Your task to perform on an android device: turn off wifi Image 0: 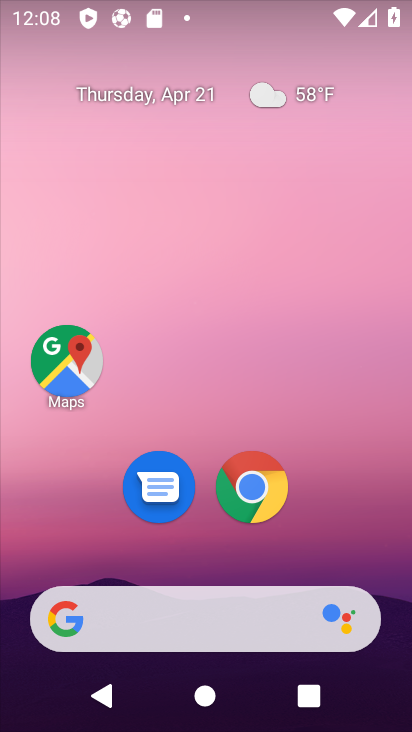
Step 0: drag from (365, 559) to (359, 3)
Your task to perform on an android device: turn off wifi Image 1: 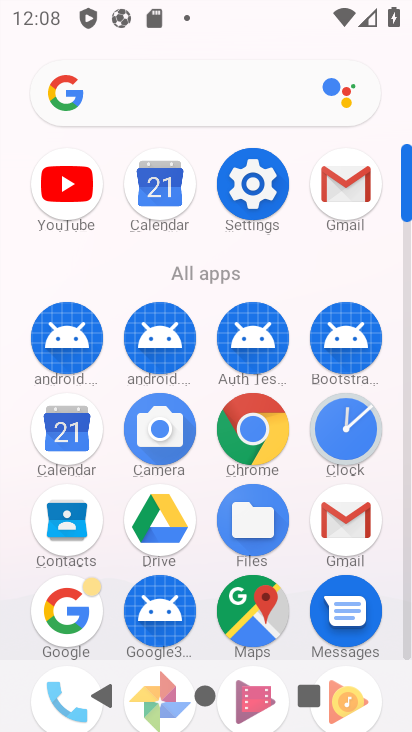
Step 1: click (249, 179)
Your task to perform on an android device: turn off wifi Image 2: 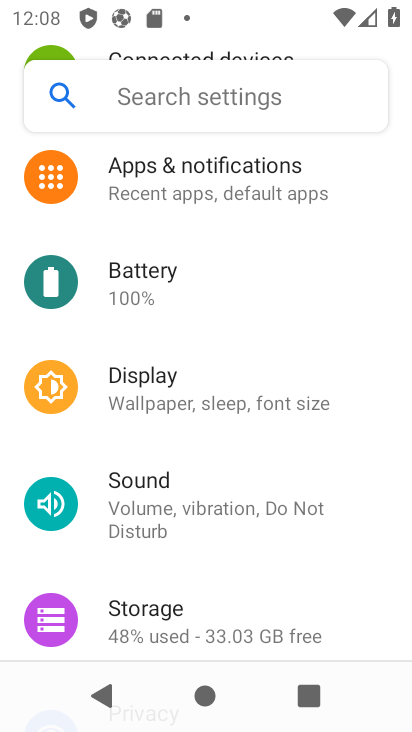
Step 2: drag from (393, 207) to (389, 604)
Your task to perform on an android device: turn off wifi Image 3: 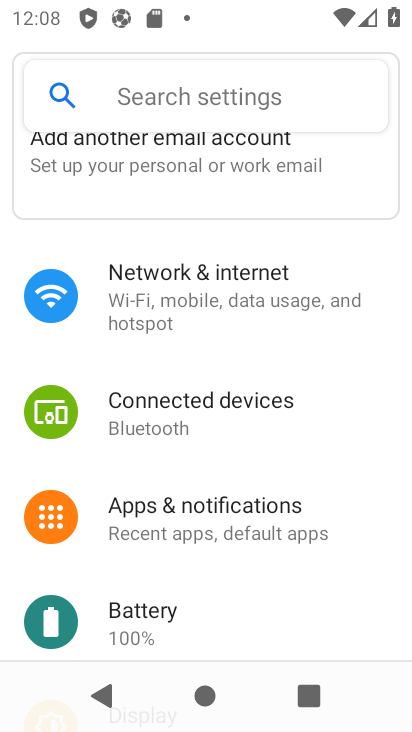
Step 3: click (163, 314)
Your task to perform on an android device: turn off wifi Image 4: 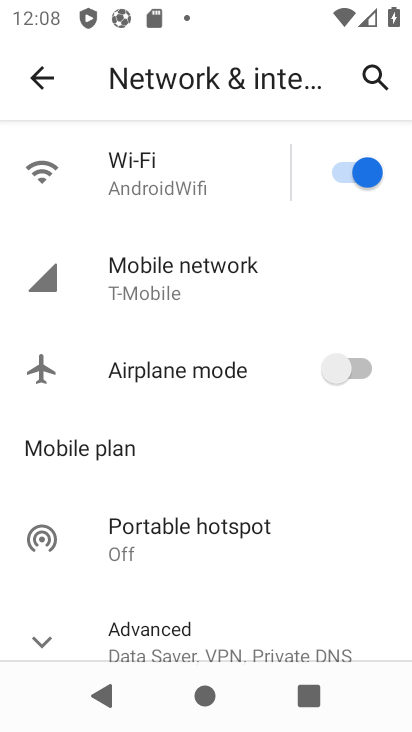
Step 4: click (352, 171)
Your task to perform on an android device: turn off wifi Image 5: 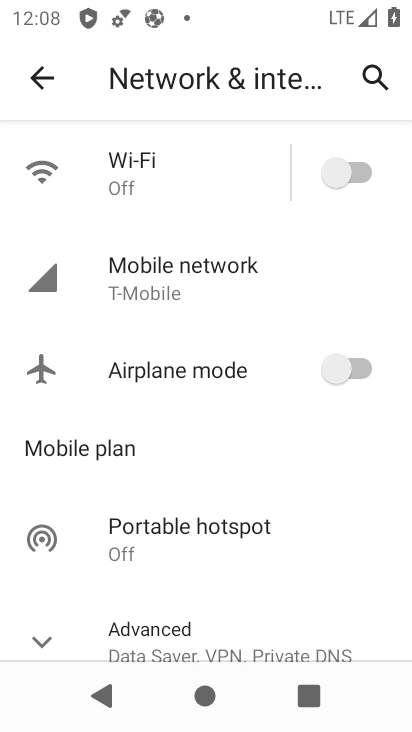
Step 5: task complete